Your task to perform on an android device: open app "Pinterest" (install if not already installed) and go to login screen Image 0: 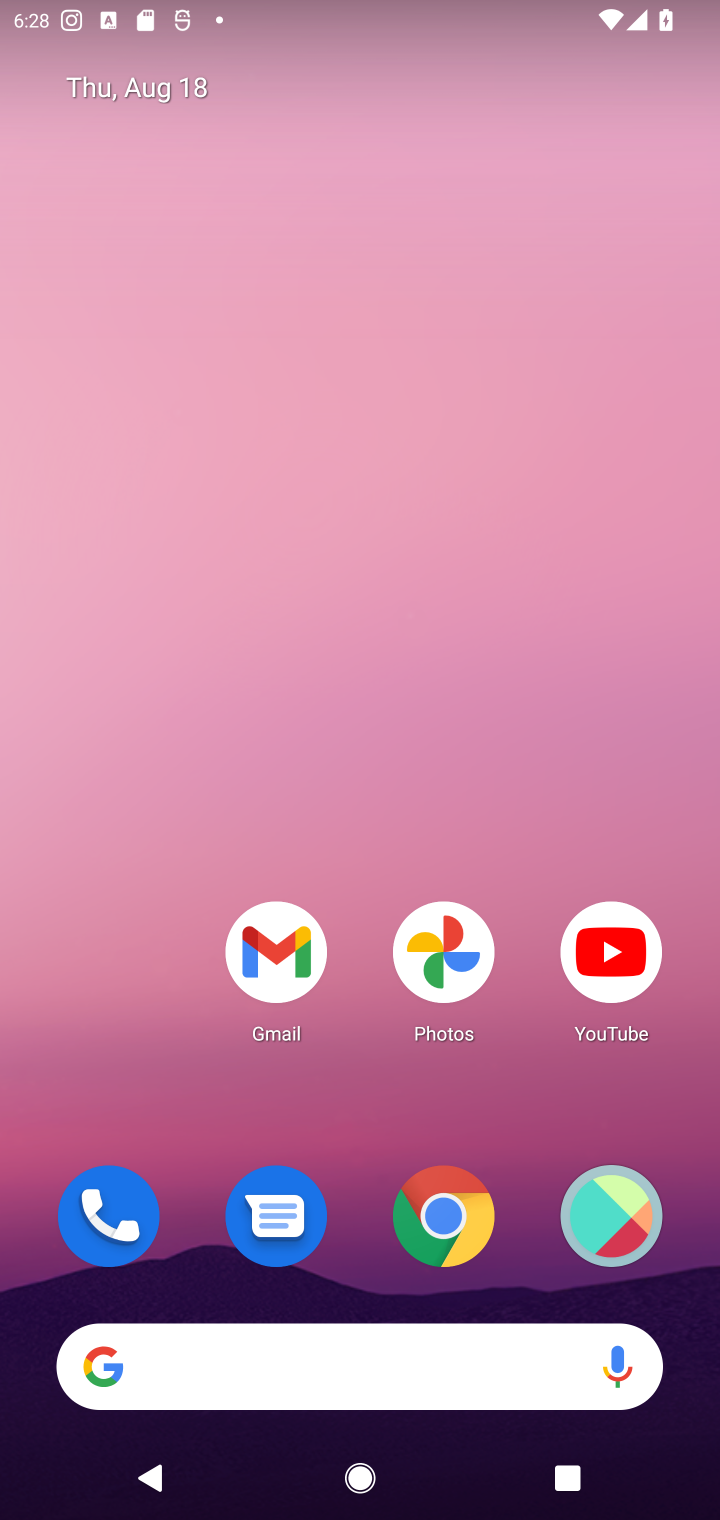
Step 0: drag from (393, 787) to (393, 303)
Your task to perform on an android device: open app "Pinterest" (install if not already installed) and go to login screen Image 1: 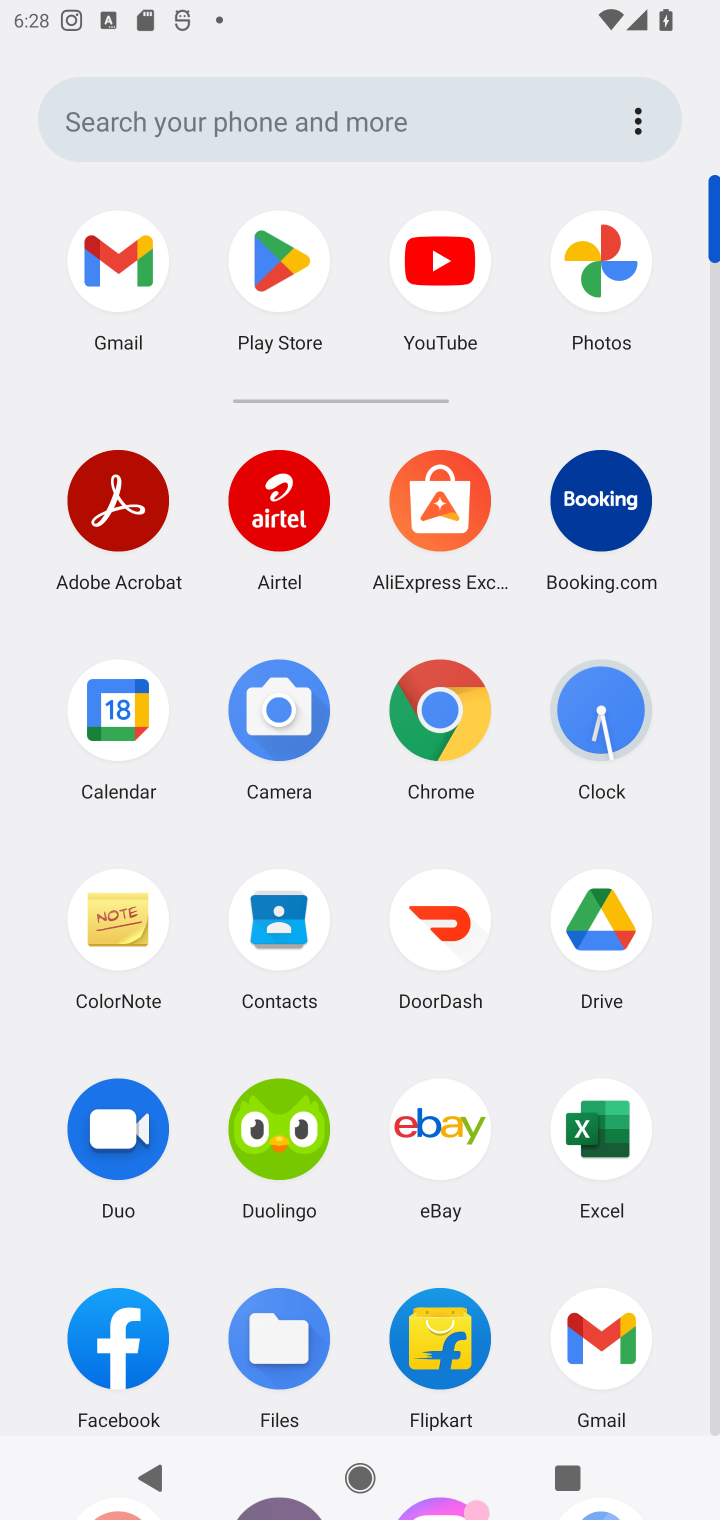
Step 1: click (266, 233)
Your task to perform on an android device: open app "Pinterest" (install if not already installed) and go to login screen Image 2: 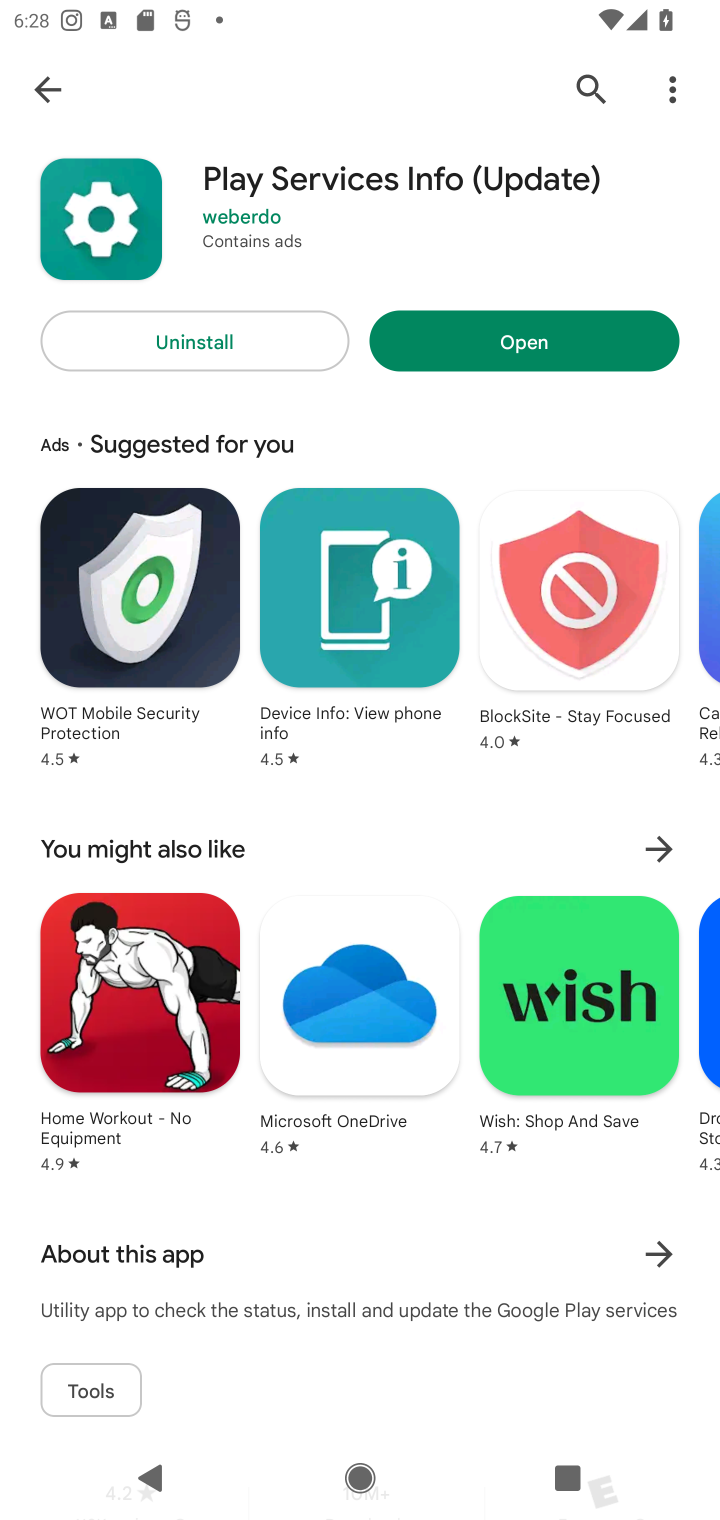
Step 2: click (605, 76)
Your task to perform on an android device: open app "Pinterest" (install if not already installed) and go to login screen Image 3: 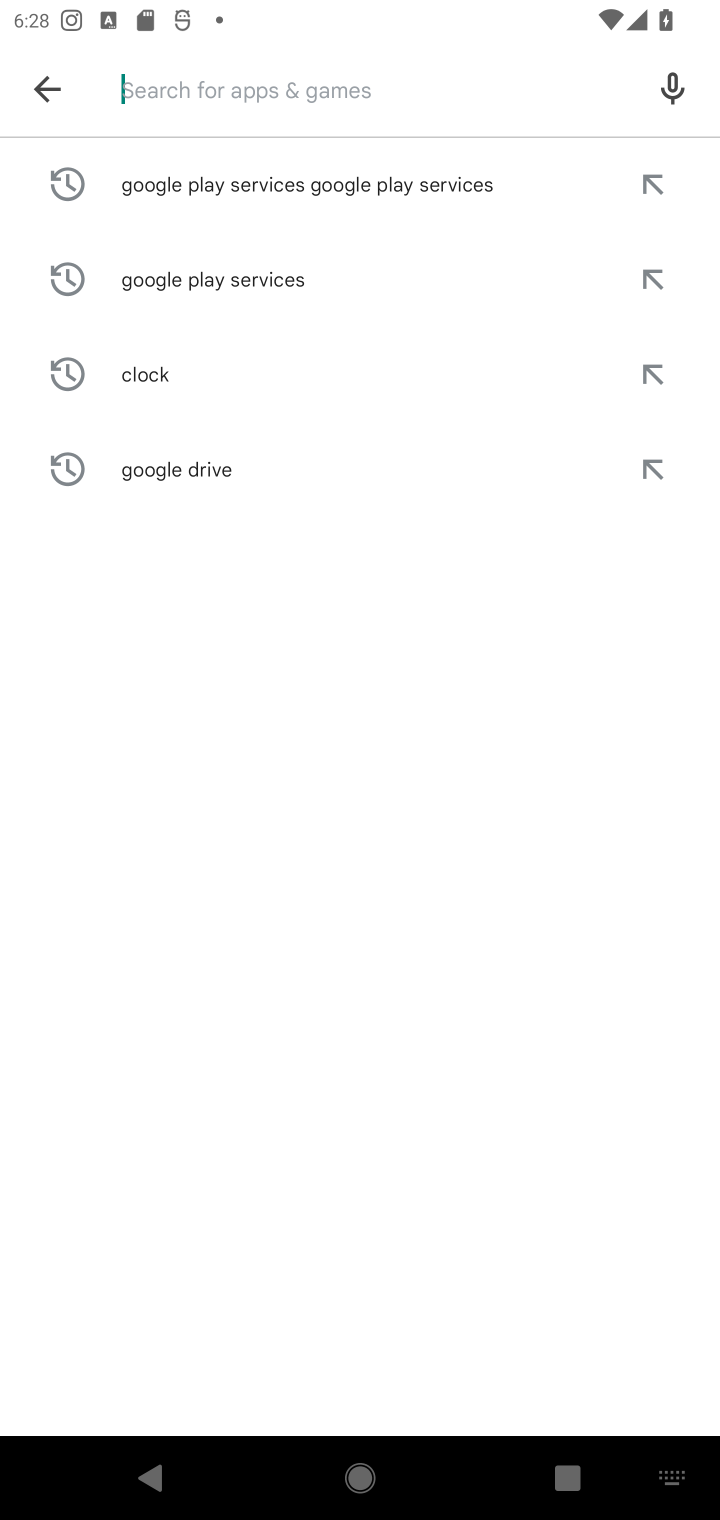
Step 3: type "Pinterest"
Your task to perform on an android device: open app "Pinterest" (install if not already installed) and go to login screen Image 4: 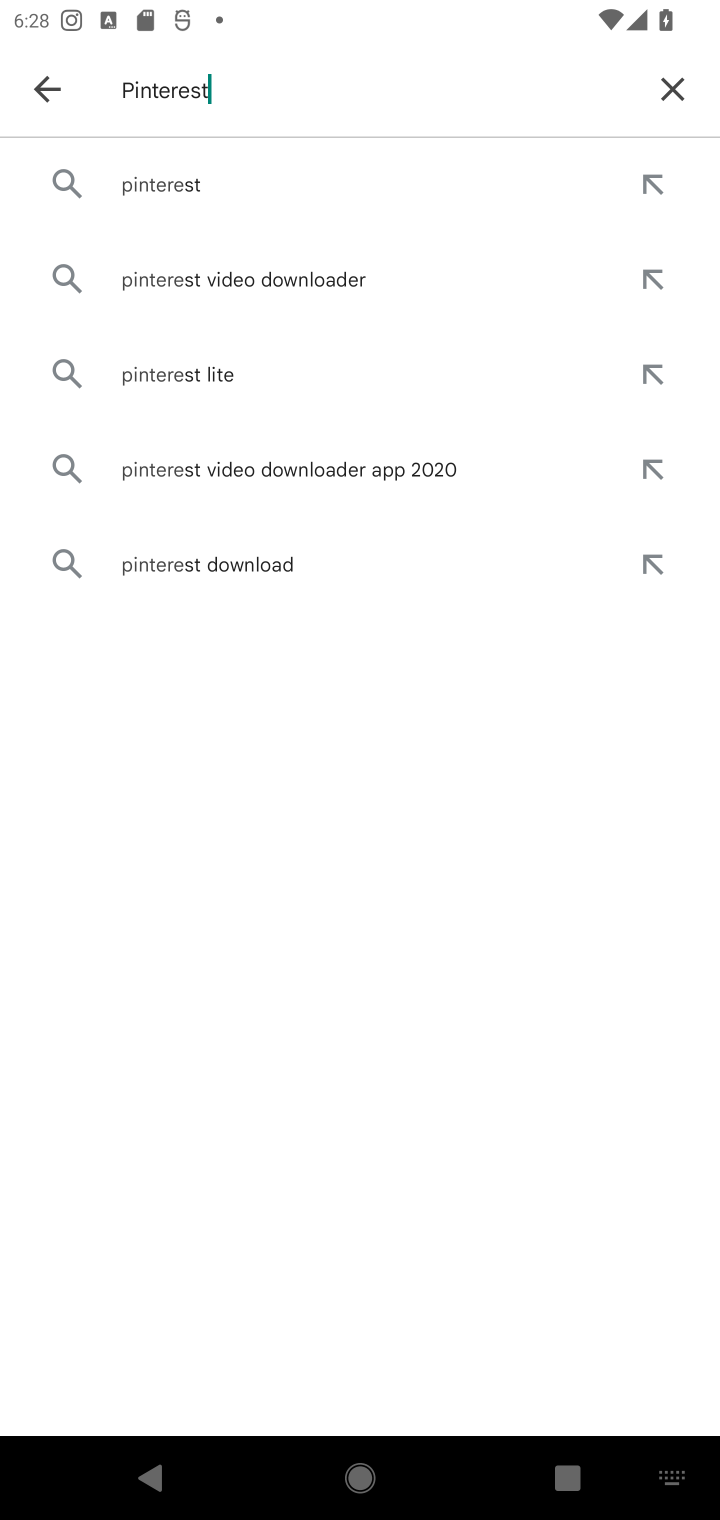
Step 4: type ""
Your task to perform on an android device: open app "Pinterest" (install if not already installed) and go to login screen Image 5: 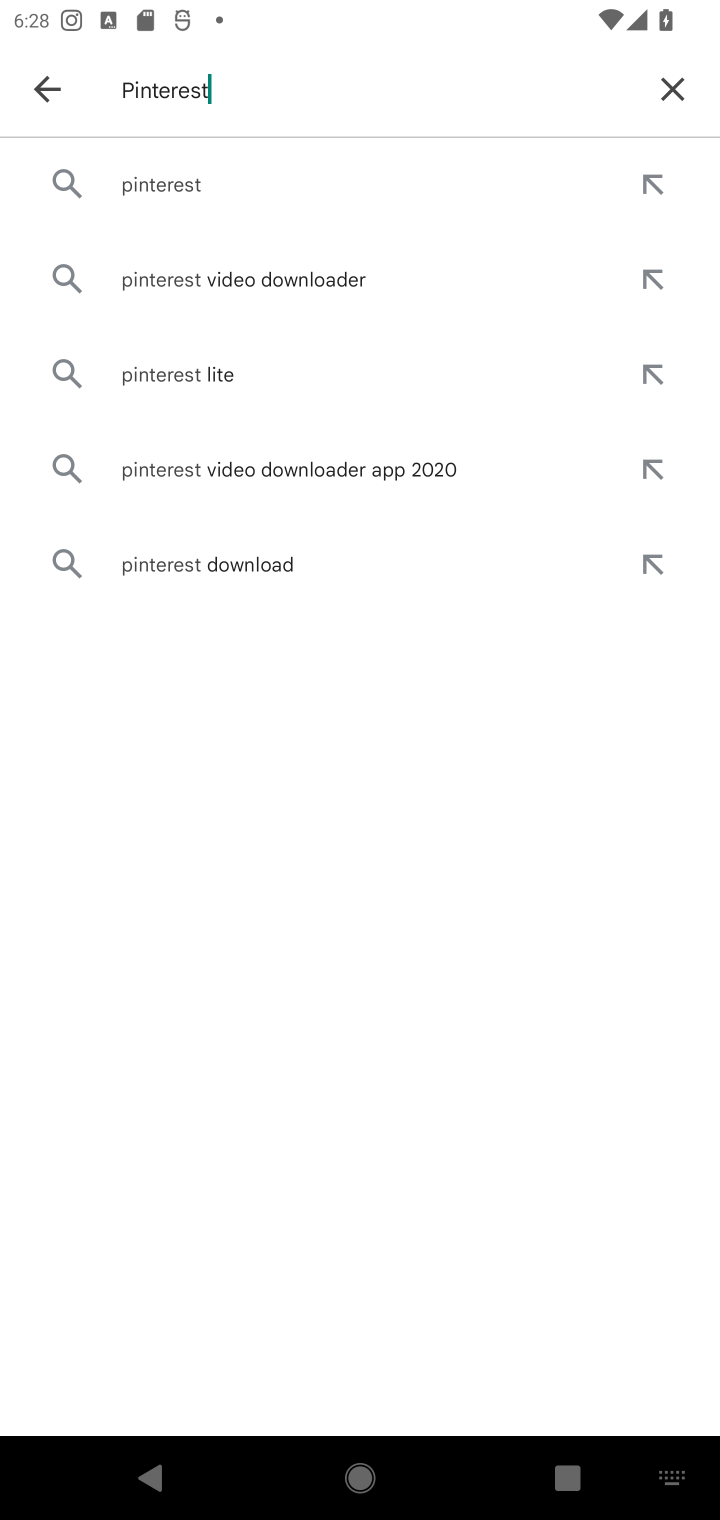
Step 5: click (202, 199)
Your task to perform on an android device: open app "Pinterest" (install if not already installed) and go to login screen Image 6: 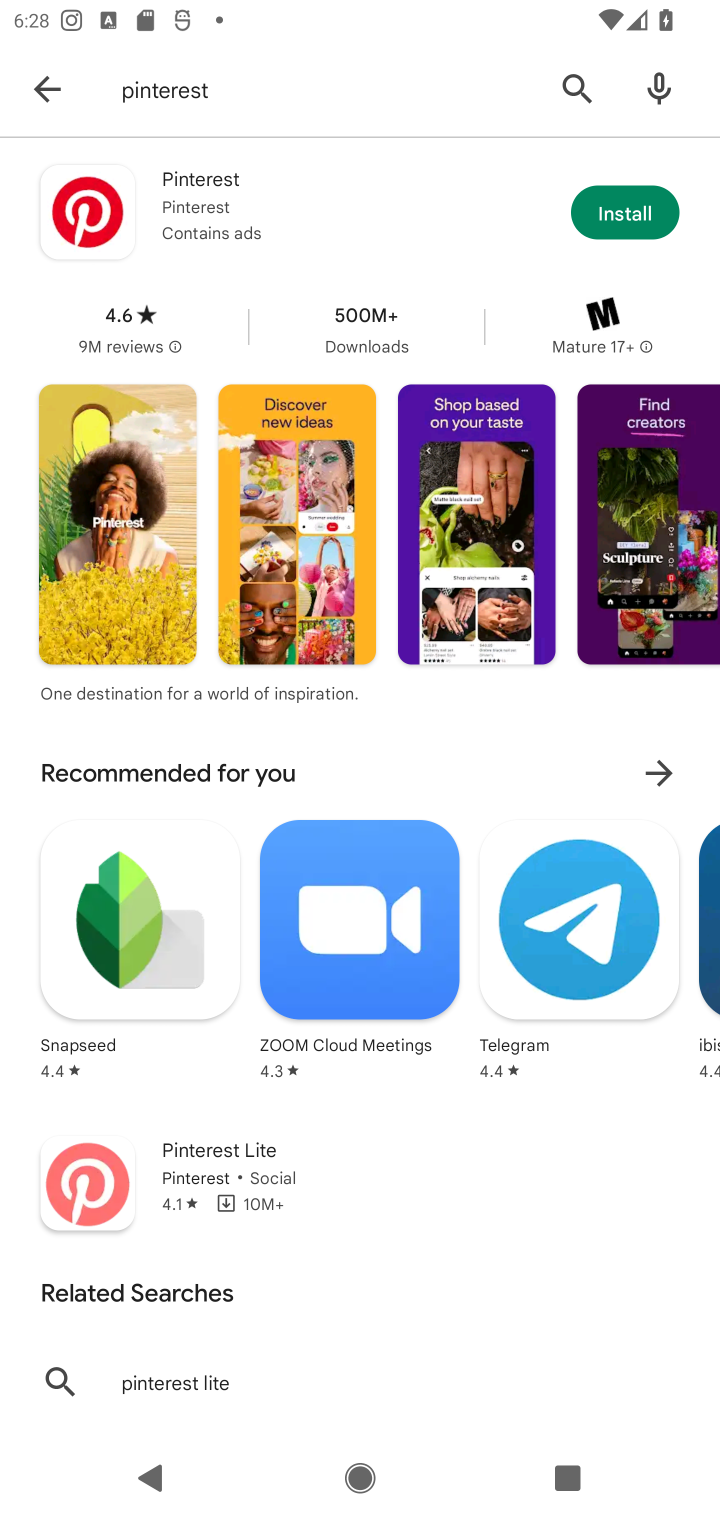
Step 6: click (638, 218)
Your task to perform on an android device: open app "Pinterest" (install if not already installed) and go to login screen Image 7: 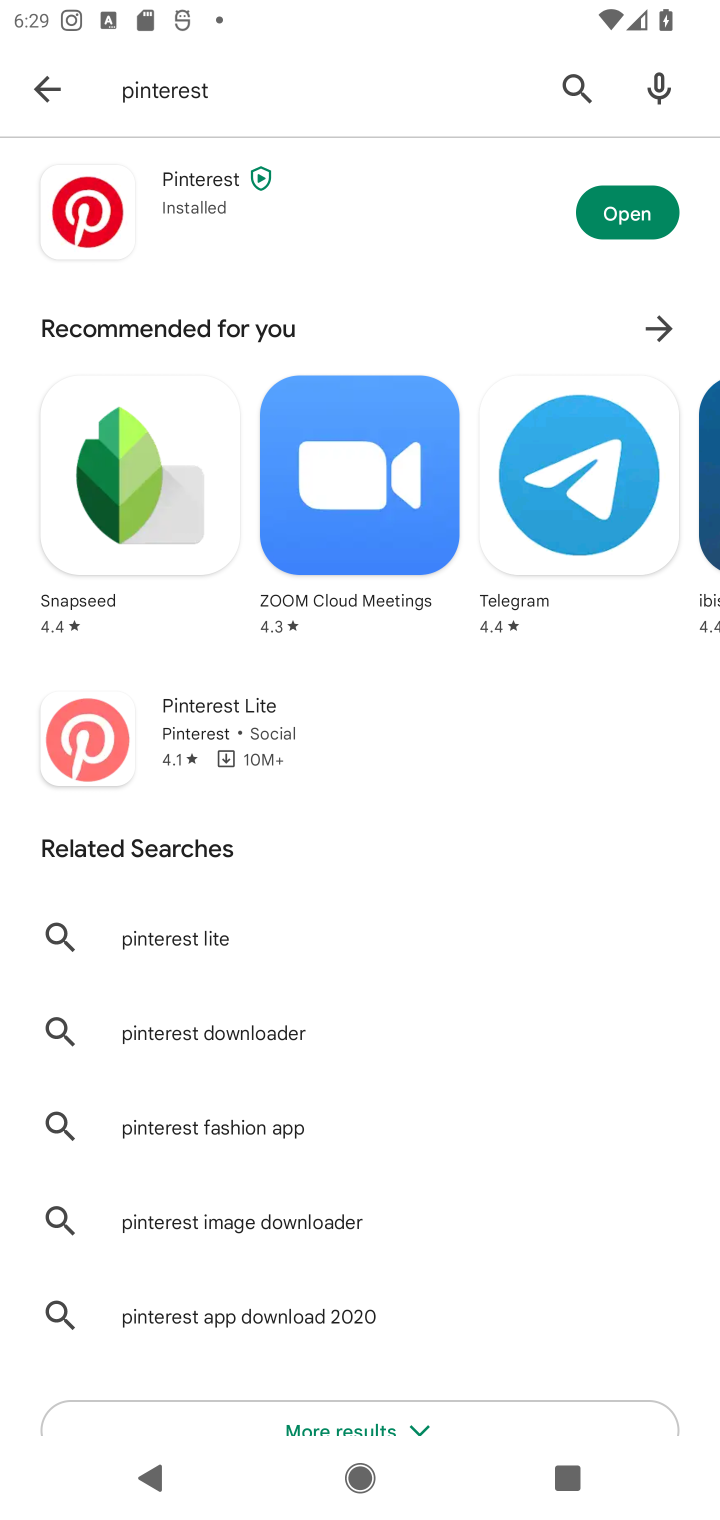
Step 7: click (634, 209)
Your task to perform on an android device: open app "Pinterest" (install if not already installed) and go to login screen Image 8: 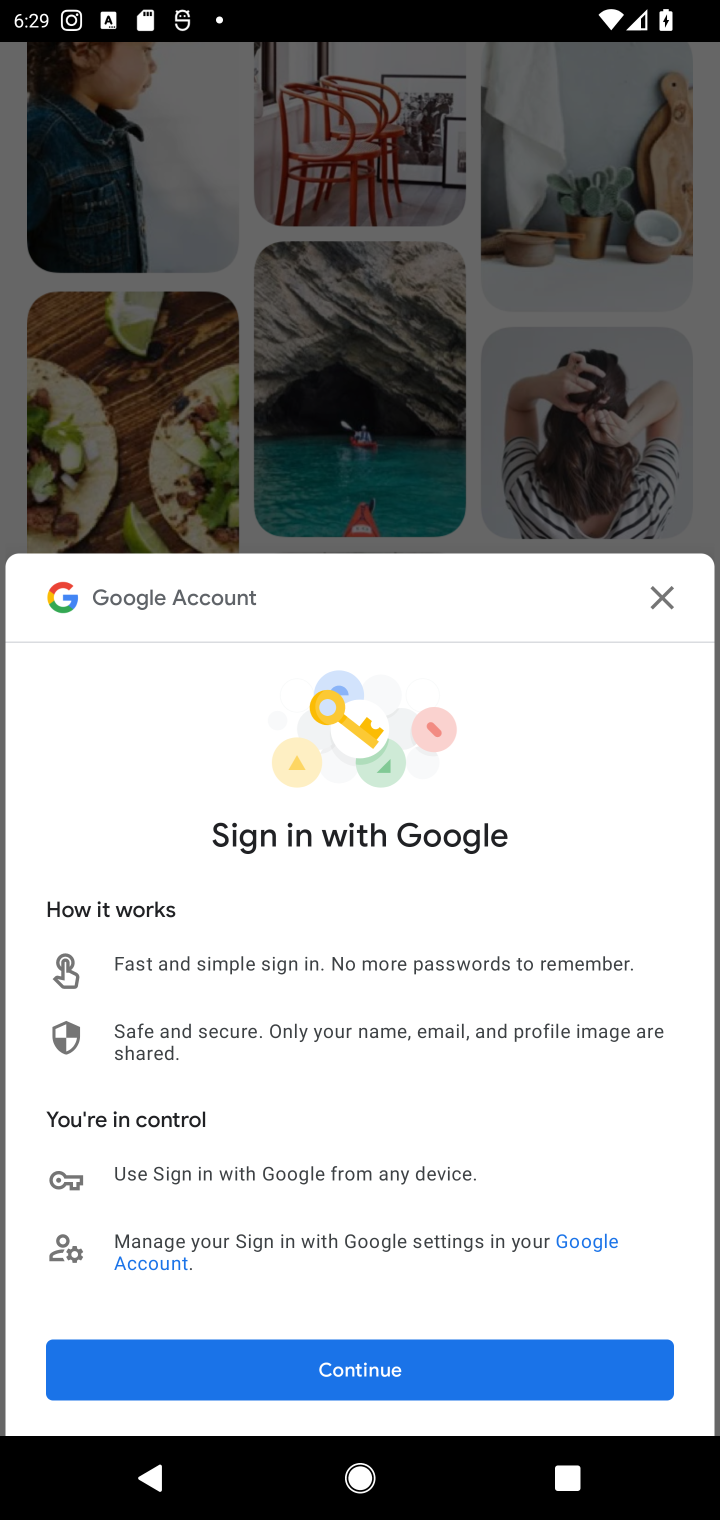
Step 8: task complete